Your task to perform on an android device: Play the last video I watched on Youtube Image 0: 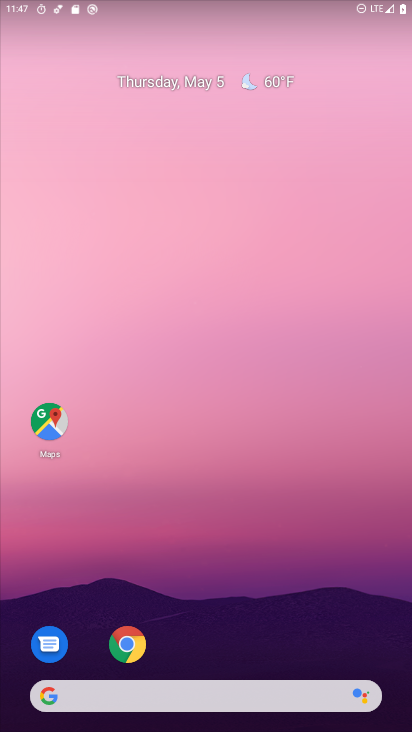
Step 0: drag from (362, 614) to (337, 152)
Your task to perform on an android device: Play the last video I watched on Youtube Image 1: 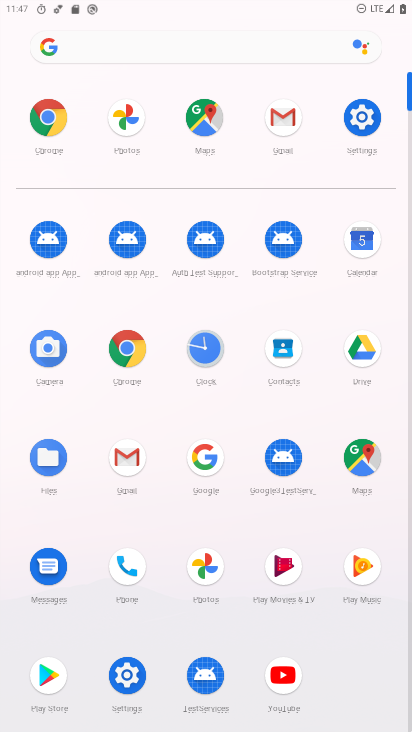
Step 1: click (283, 684)
Your task to perform on an android device: Play the last video I watched on Youtube Image 2: 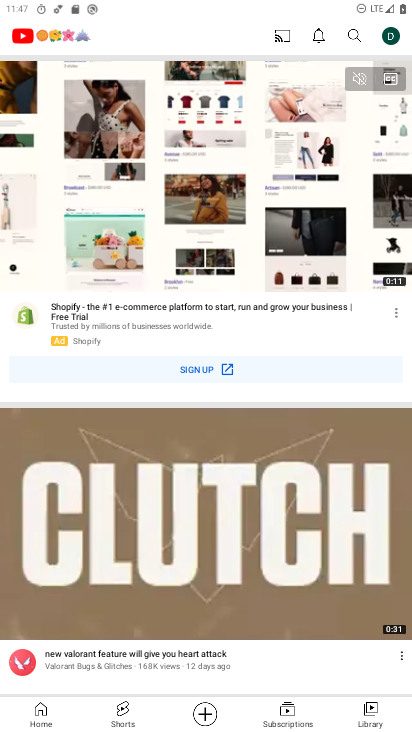
Step 2: click (373, 697)
Your task to perform on an android device: Play the last video I watched on Youtube Image 3: 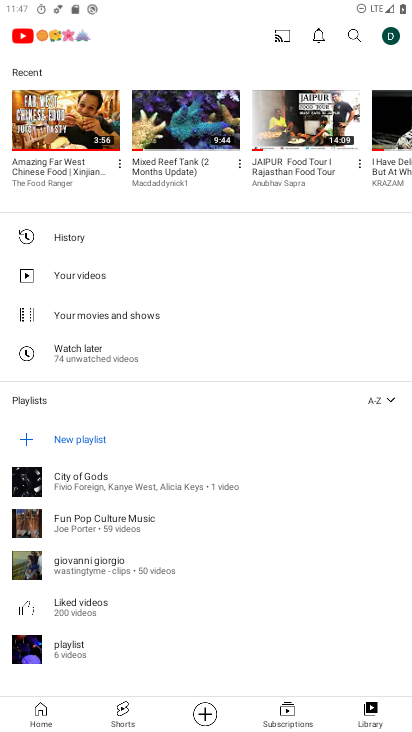
Step 3: task complete